Your task to perform on an android device: Open battery settings Image 0: 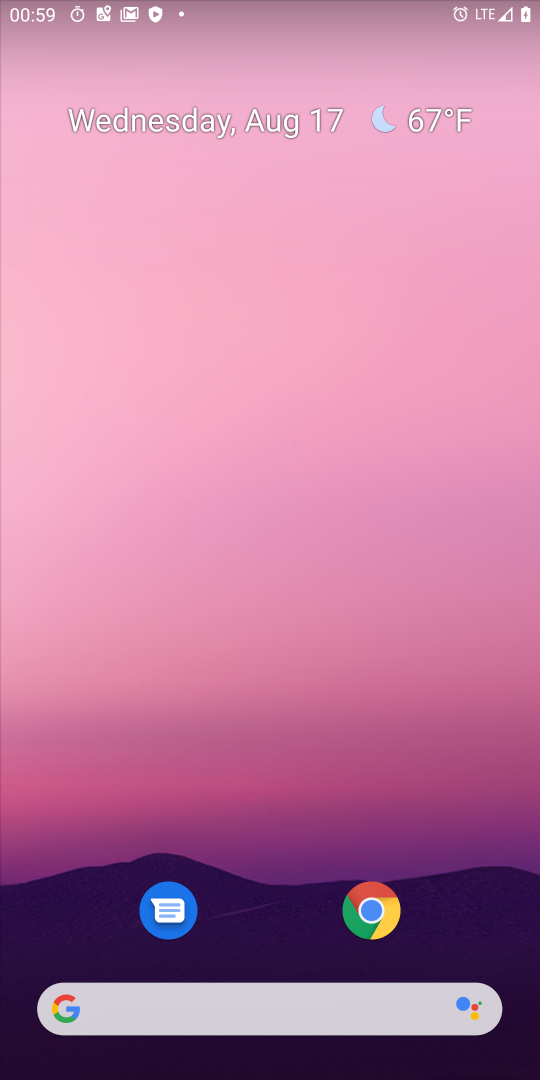
Step 0: drag from (257, 909) to (55, 8)
Your task to perform on an android device: Open battery settings Image 1: 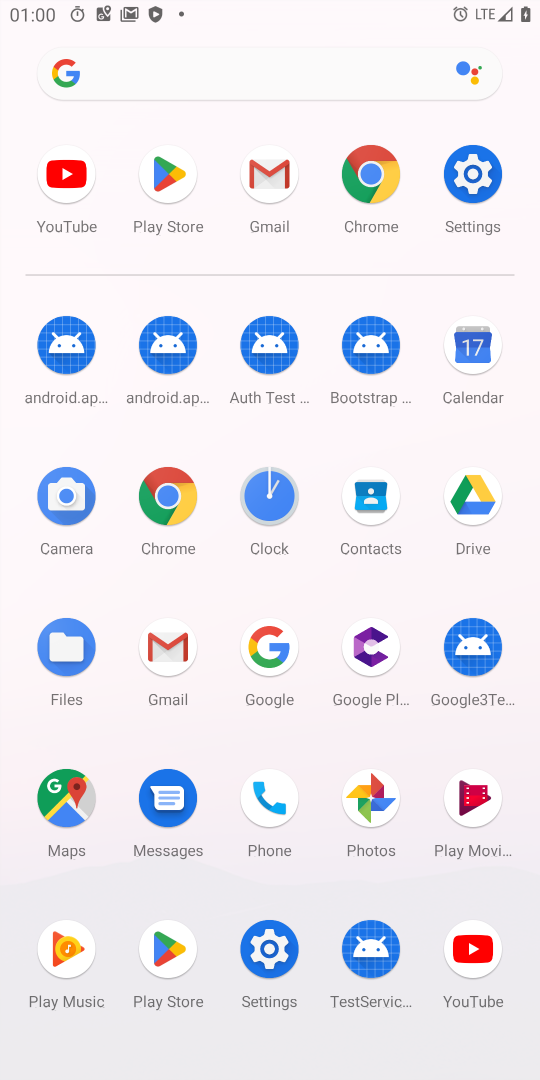
Step 1: click (259, 946)
Your task to perform on an android device: Open battery settings Image 2: 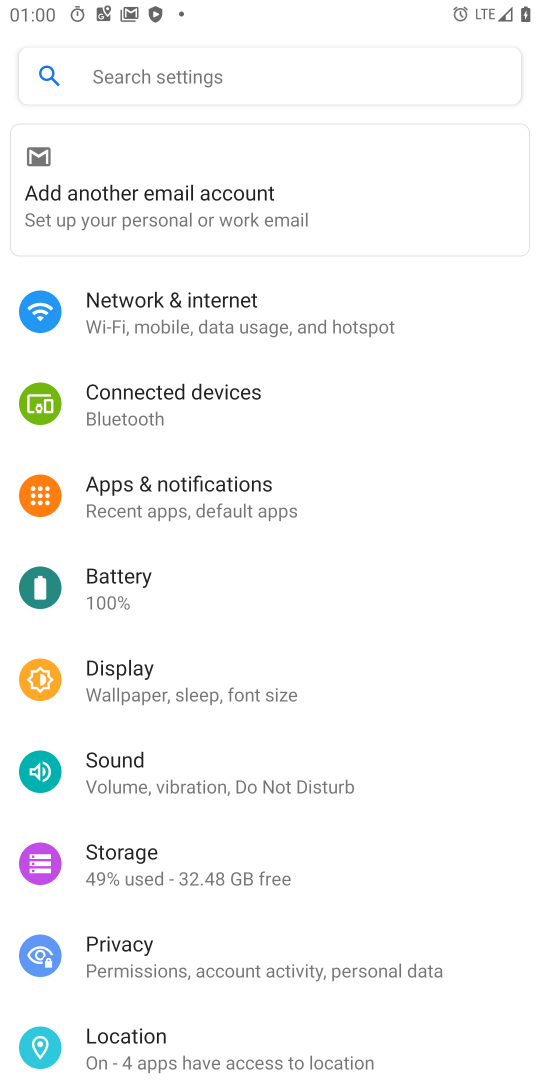
Step 2: click (140, 577)
Your task to perform on an android device: Open battery settings Image 3: 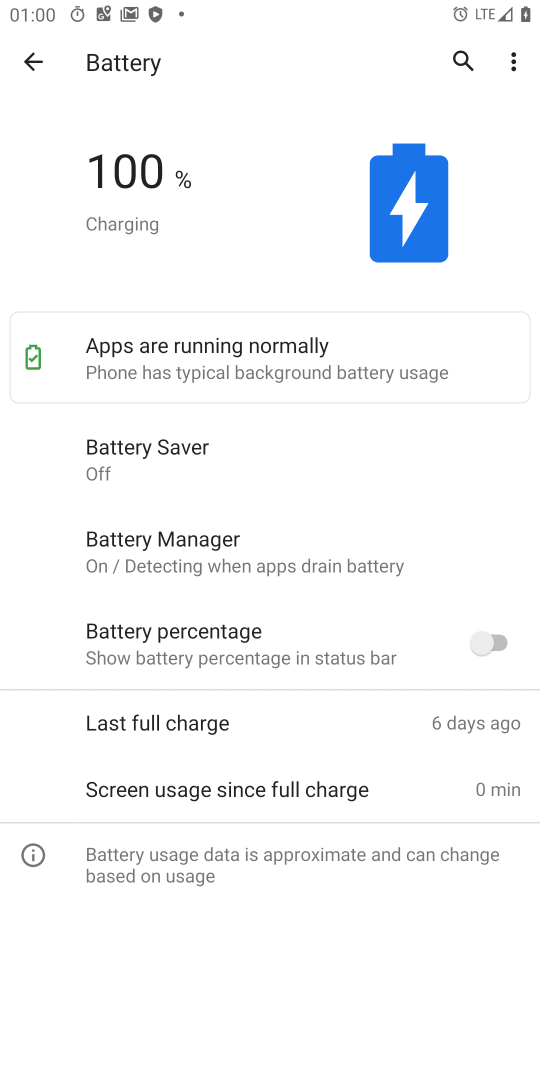
Step 3: task complete